Your task to perform on an android device: Open Google Maps Image 0: 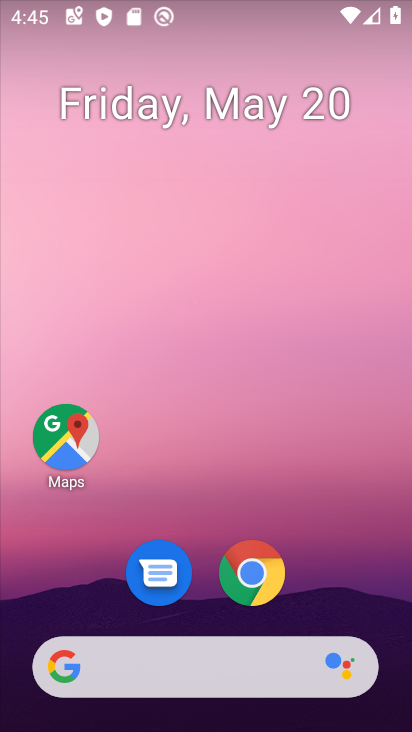
Step 0: click (68, 440)
Your task to perform on an android device: Open Google Maps Image 1: 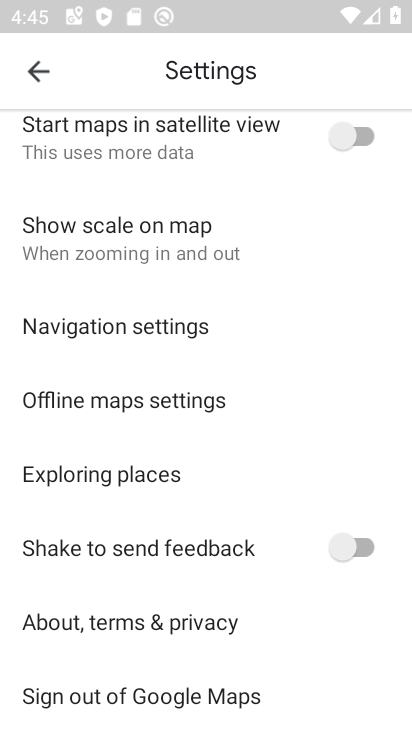
Step 1: task complete